Your task to perform on an android device: turn off priority inbox in the gmail app Image 0: 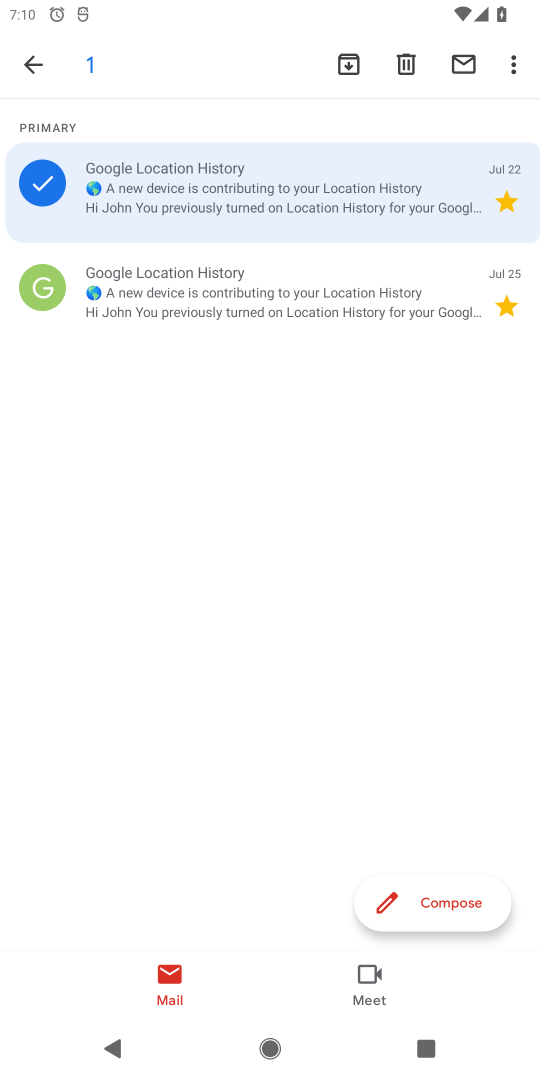
Step 0: press home button
Your task to perform on an android device: turn off priority inbox in the gmail app Image 1: 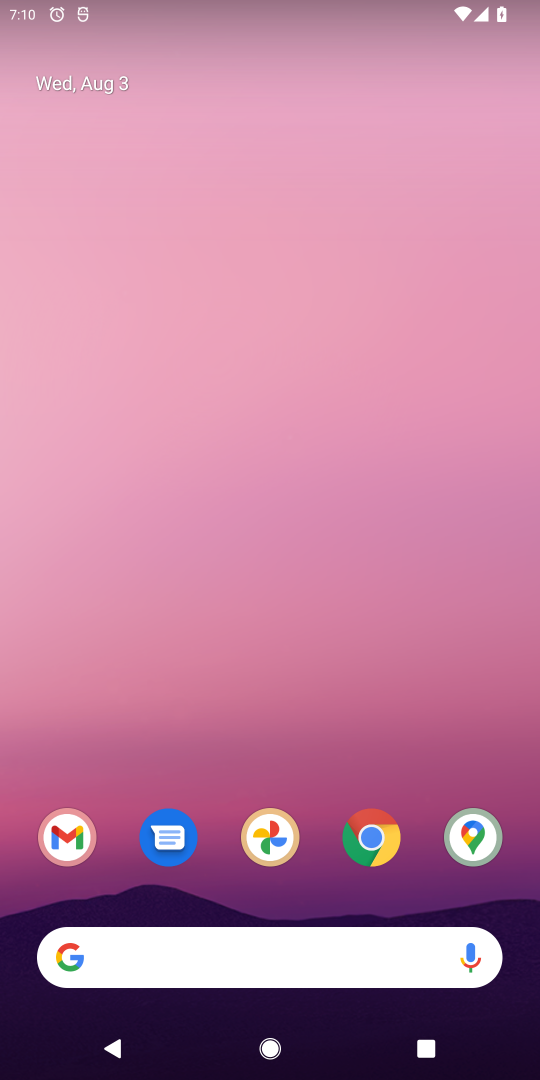
Step 1: drag from (413, 762) to (458, 240)
Your task to perform on an android device: turn off priority inbox in the gmail app Image 2: 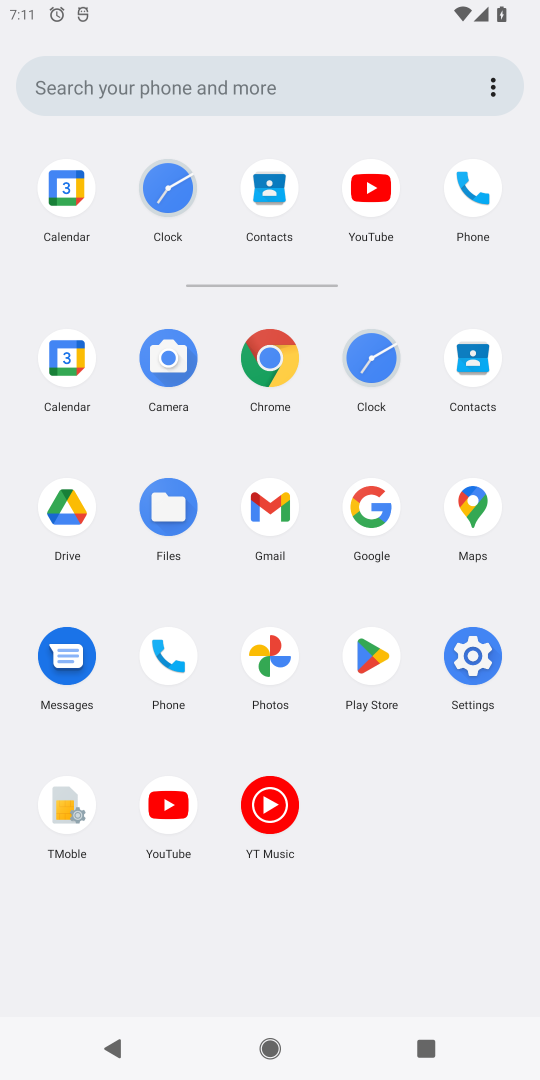
Step 2: click (267, 502)
Your task to perform on an android device: turn off priority inbox in the gmail app Image 3: 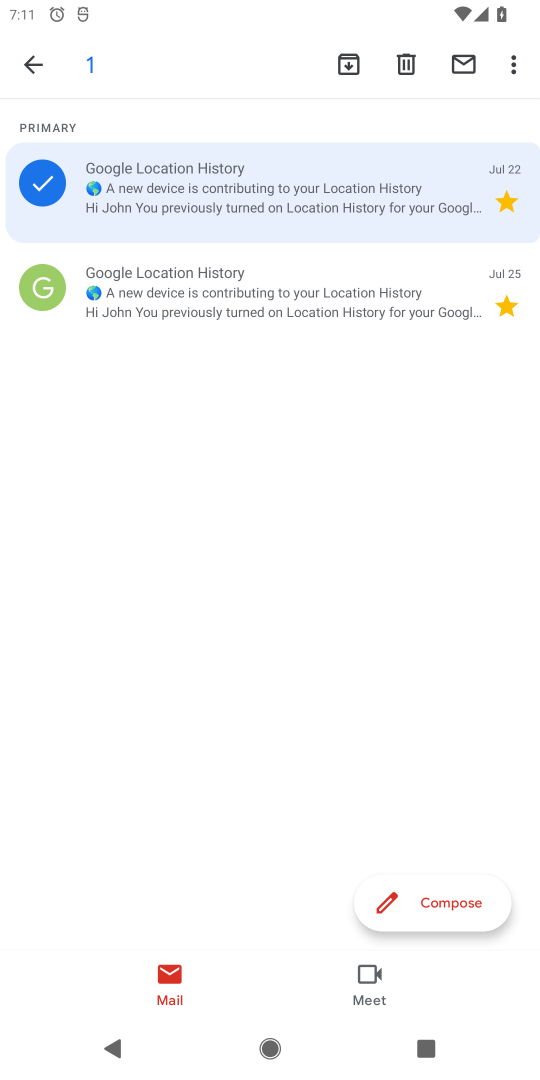
Step 3: click (24, 58)
Your task to perform on an android device: turn off priority inbox in the gmail app Image 4: 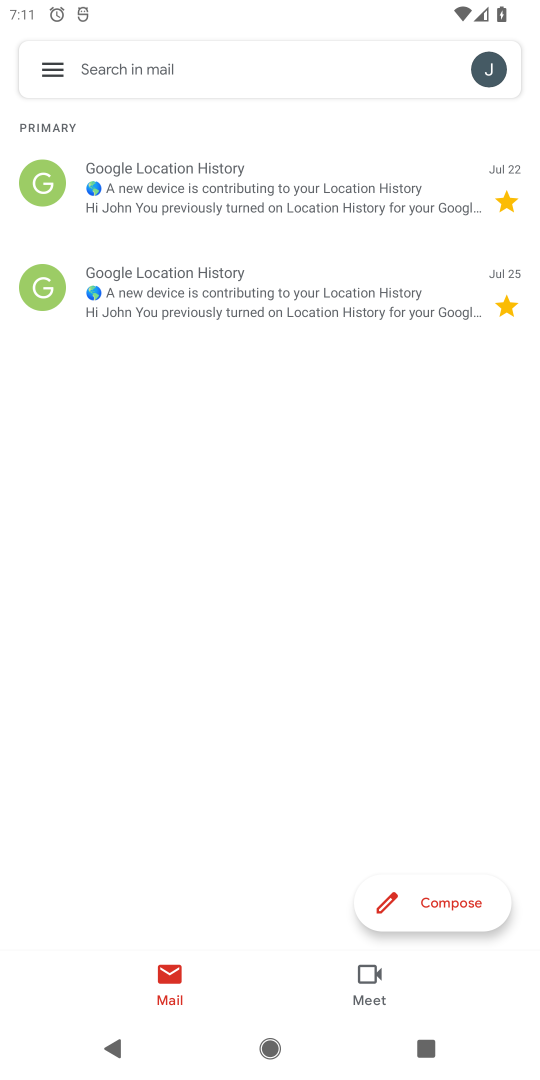
Step 4: click (28, 59)
Your task to perform on an android device: turn off priority inbox in the gmail app Image 5: 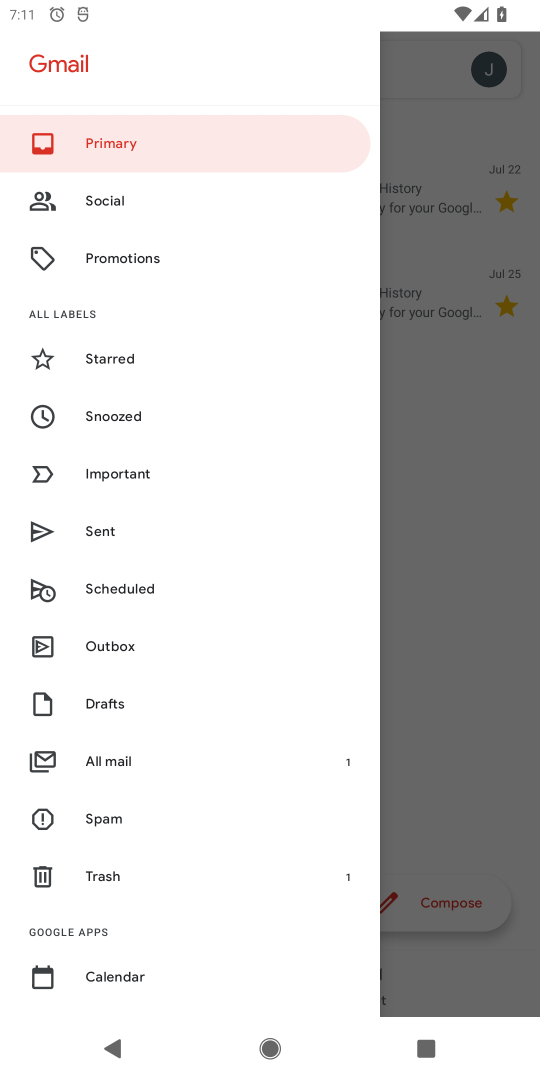
Step 5: drag from (138, 930) to (167, 631)
Your task to perform on an android device: turn off priority inbox in the gmail app Image 6: 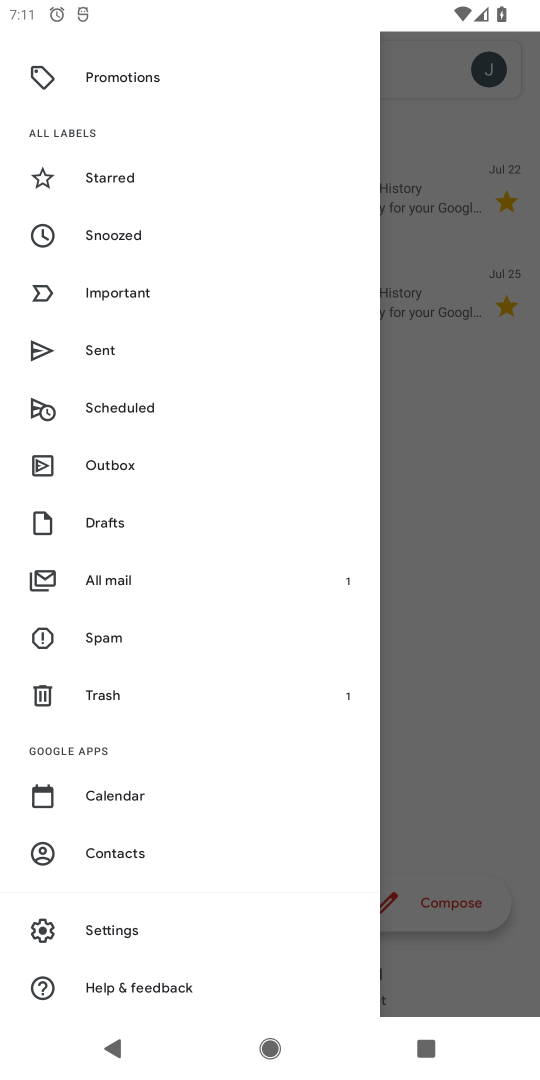
Step 6: click (171, 934)
Your task to perform on an android device: turn off priority inbox in the gmail app Image 7: 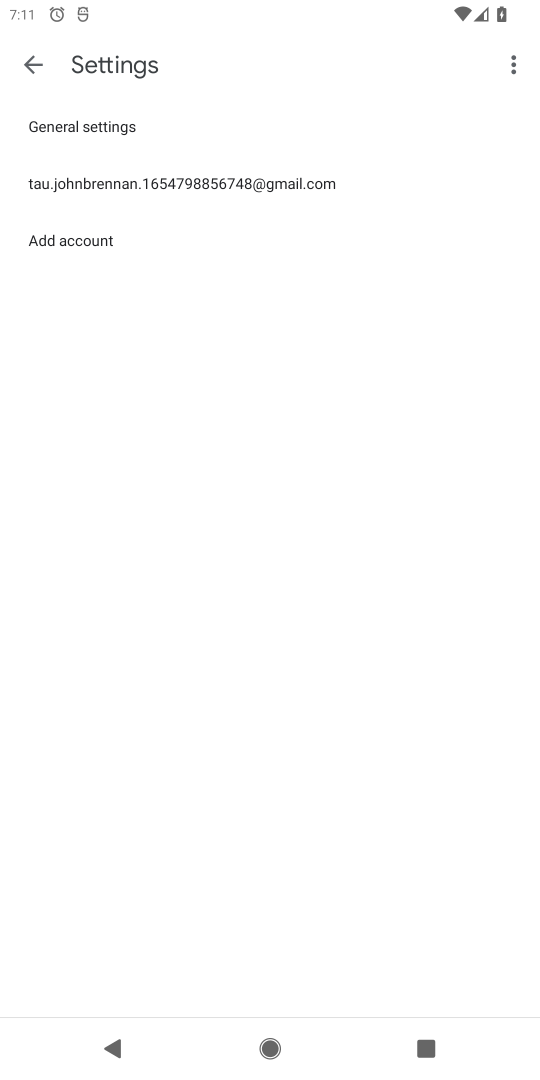
Step 7: click (109, 196)
Your task to perform on an android device: turn off priority inbox in the gmail app Image 8: 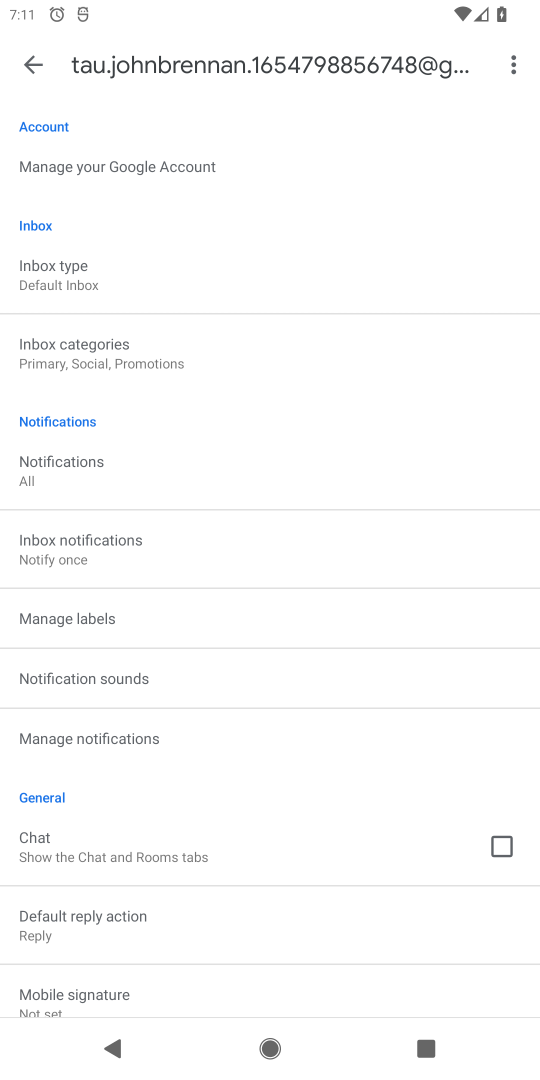
Step 8: task complete